Your task to perform on an android device: check google app version Image 0: 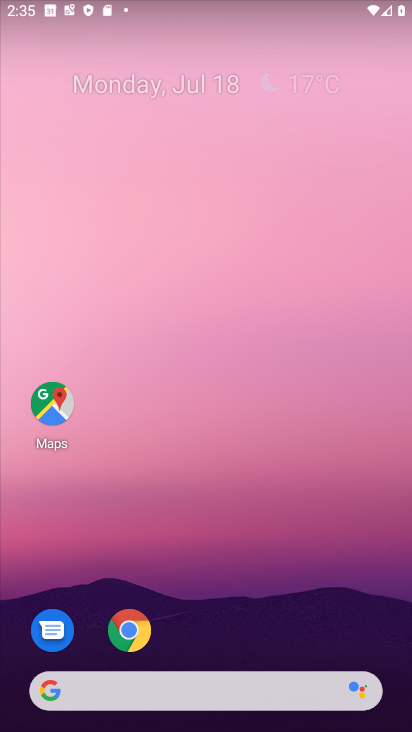
Step 0: drag from (222, 633) to (271, 2)
Your task to perform on an android device: check google app version Image 1: 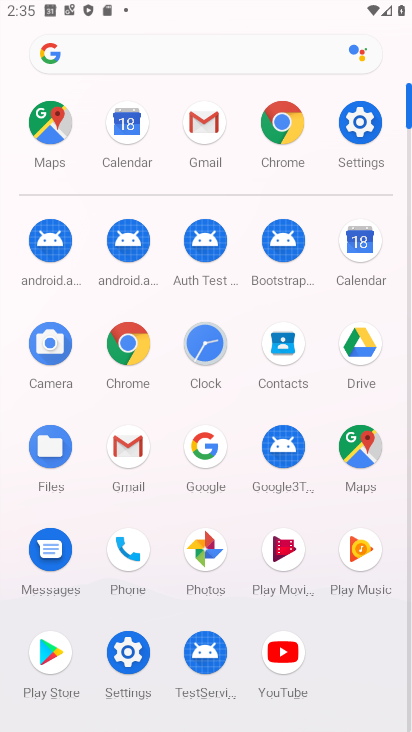
Step 1: click (208, 444)
Your task to perform on an android device: check google app version Image 2: 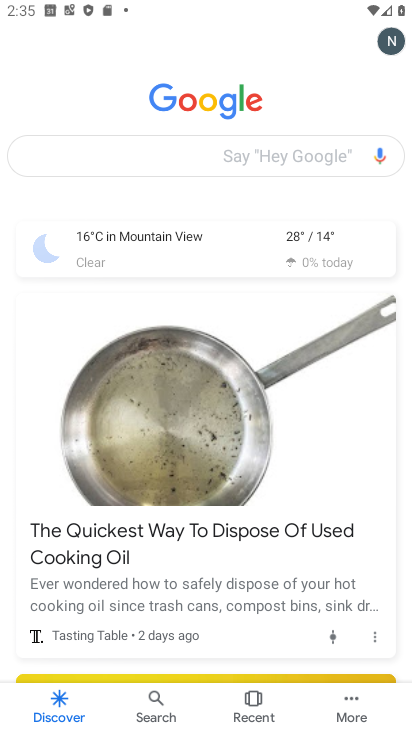
Step 2: click (350, 697)
Your task to perform on an android device: check google app version Image 3: 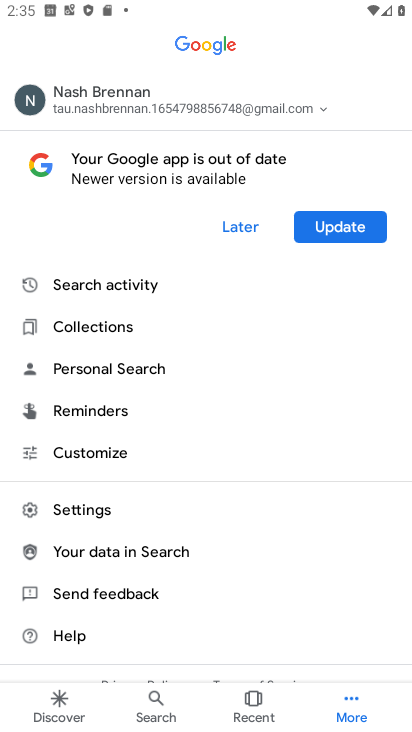
Step 3: click (110, 500)
Your task to perform on an android device: check google app version Image 4: 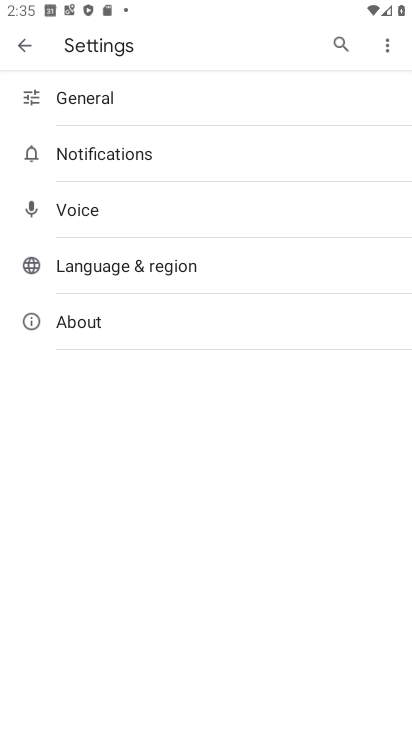
Step 4: click (77, 307)
Your task to perform on an android device: check google app version Image 5: 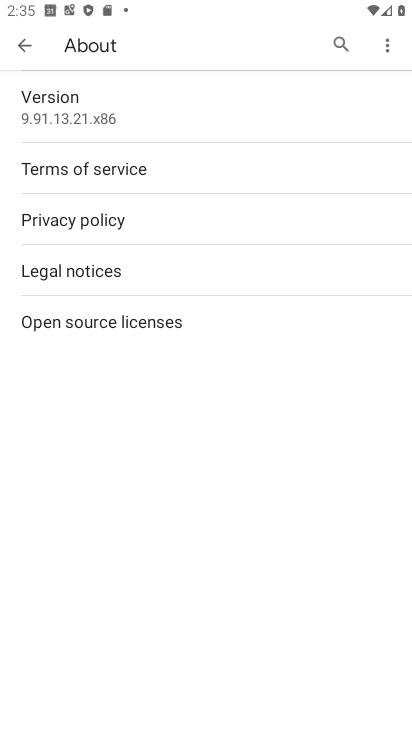
Step 5: task complete